Your task to perform on an android device: What's on my calendar today? Image 0: 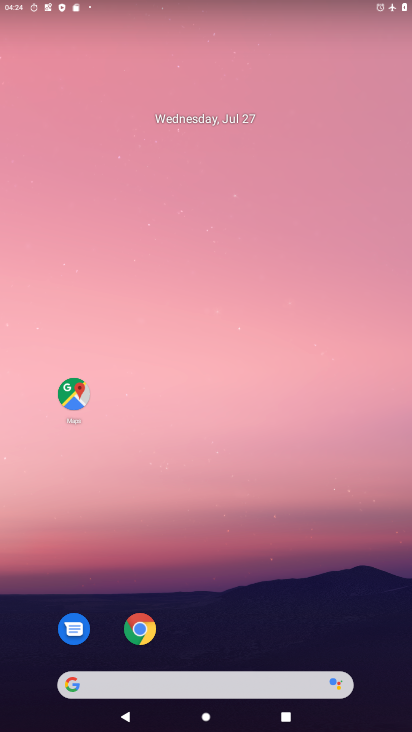
Step 0: drag from (225, 228) to (211, 2)
Your task to perform on an android device: What's on my calendar today? Image 1: 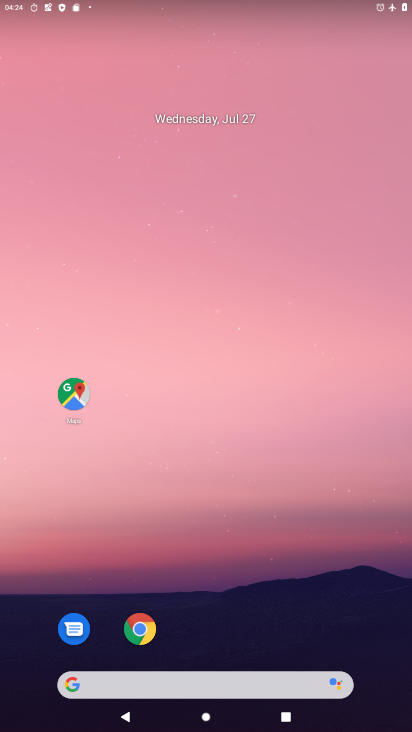
Step 1: drag from (244, 236) to (229, 4)
Your task to perform on an android device: What's on my calendar today? Image 2: 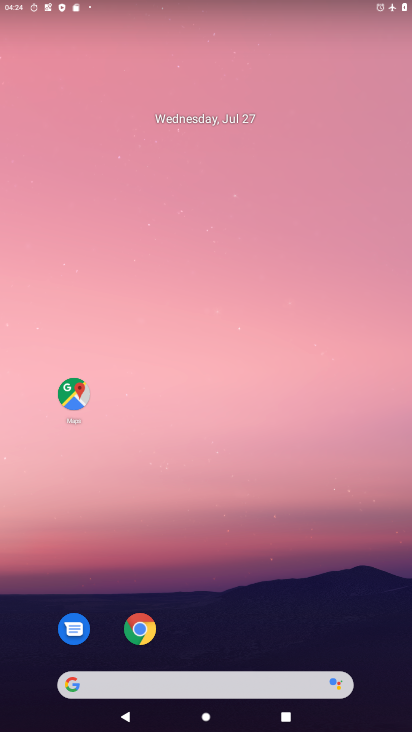
Step 2: drag from (285, 609) to (251, 57)
Your task to perform on an android device: What's on my calendar today? Image 3: 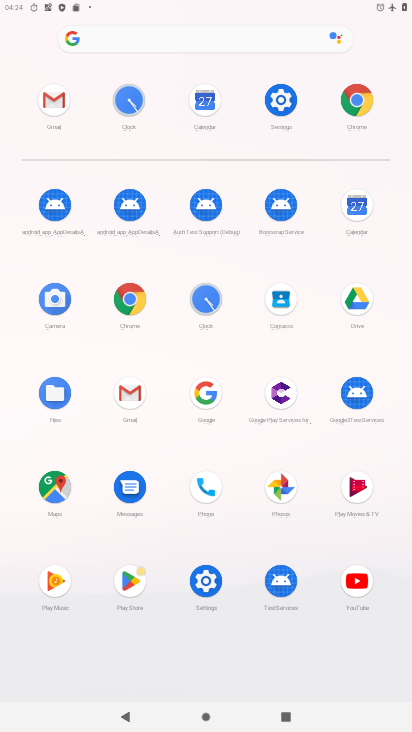
Step 3: click (364, 211)
Your task to perform on an android device: What's on my calendar today? Image 4: 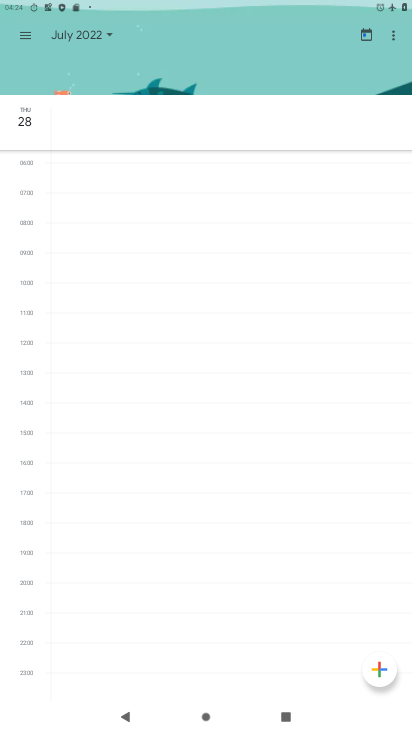
Step 4: click (65, 30)
Your task to perform on an android device: What's on my calendar today? Image 5: 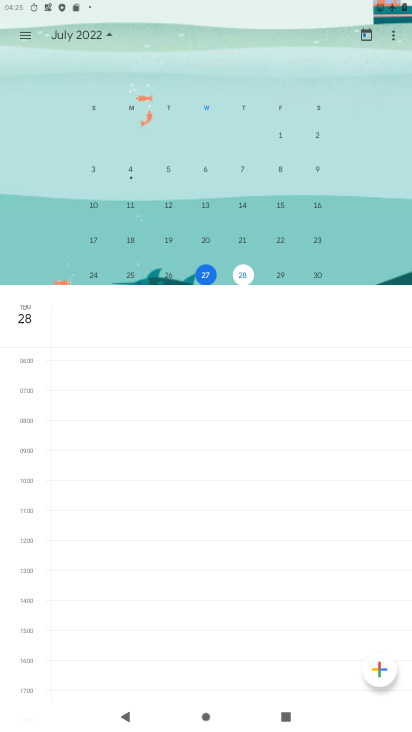
Step 5: click (199, 274)
Your task to perform on an android device: What's on my calendar today? Image 6: 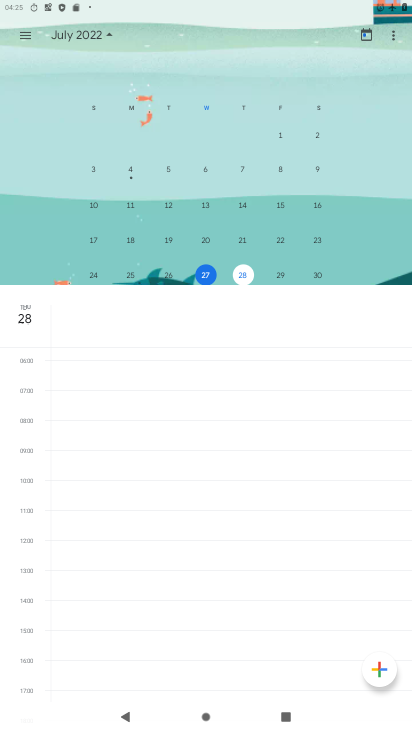
Step 6: click (201, 278)
Your task to perform on an android device: What's on my calendar today? Image 7: 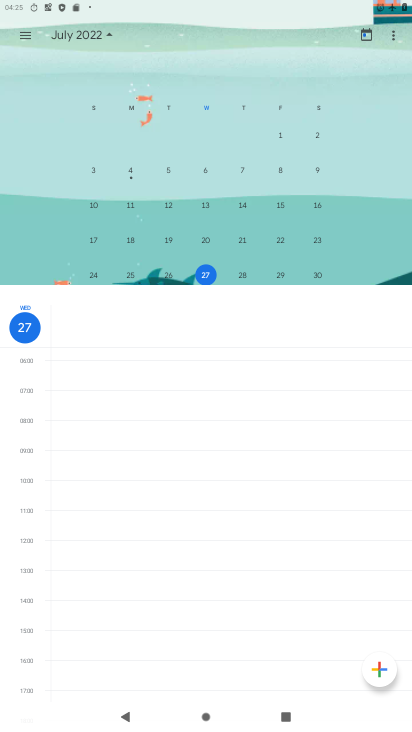
Step 7: click (201, 278)
Your task to perform on an android device: What's on my calendar today? Image 8: 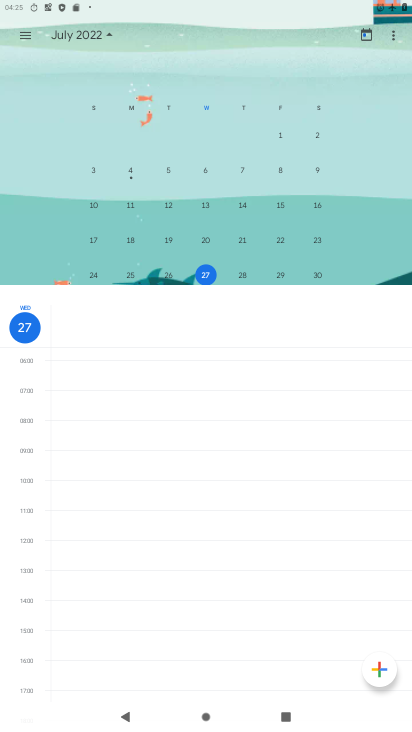
Step 8: click (201, 278)
Your task to perform on an android device: What's on my calendar today? Image 9: 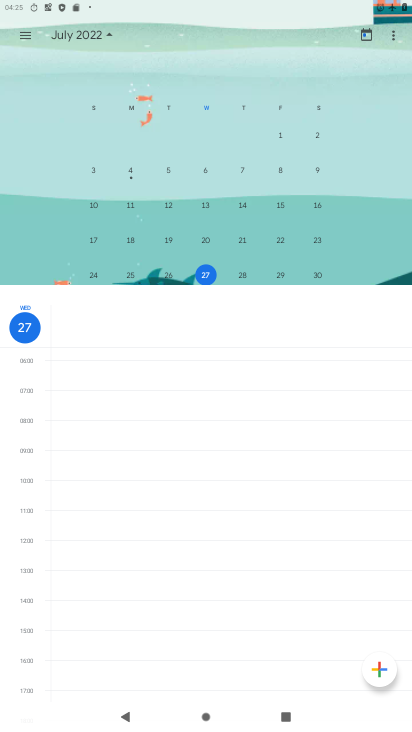
Step 9: task complete